Your task to perform on an android device: Go to Yahoo.com Image 0: 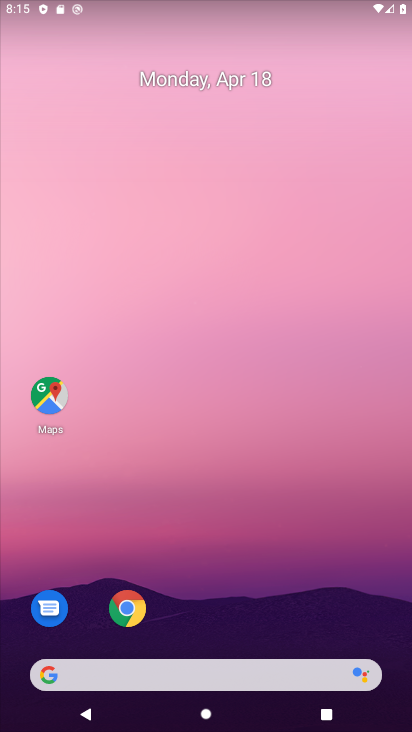
Step 0: click (127, 613)
Your task to perform on an android device: Go to Yahoo.com Image 1: 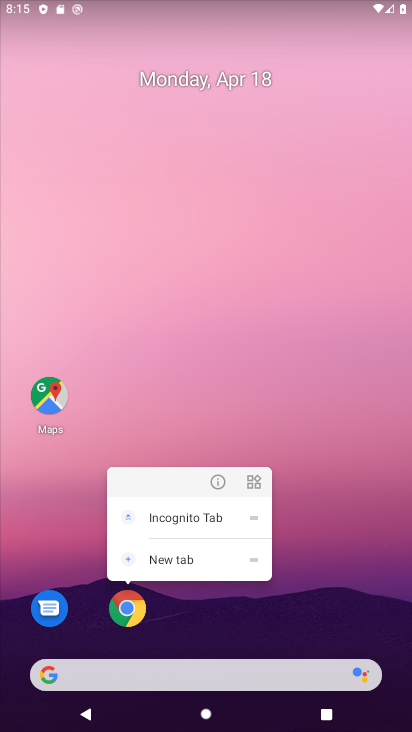
Step 1: click (129, 615)
Your task to perform on an android device: Go to Yahoo.com Image 2: 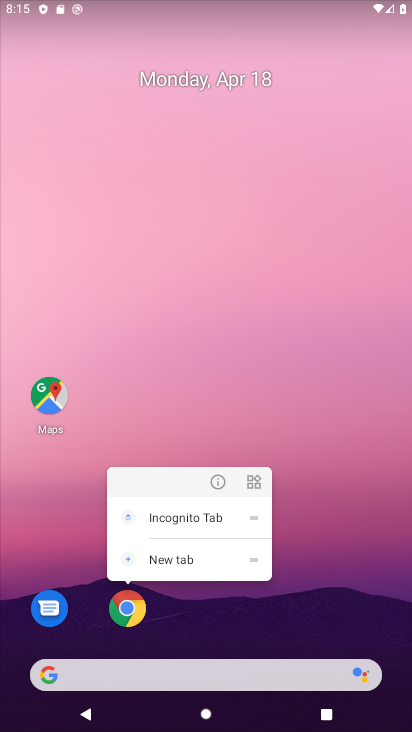
Step 2: click (129, 615)
Your task to perform on an android device: Go to Yahoo.com Image 3: 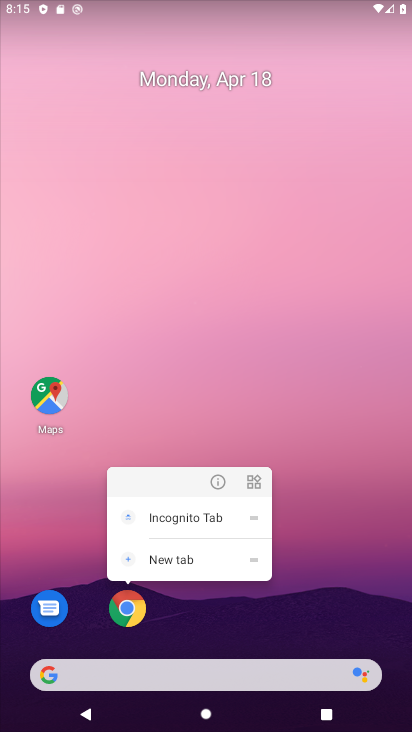
Step 3: click (128, 603)
Your task to perform on an android device: Go to Yahoo.com Image 4: 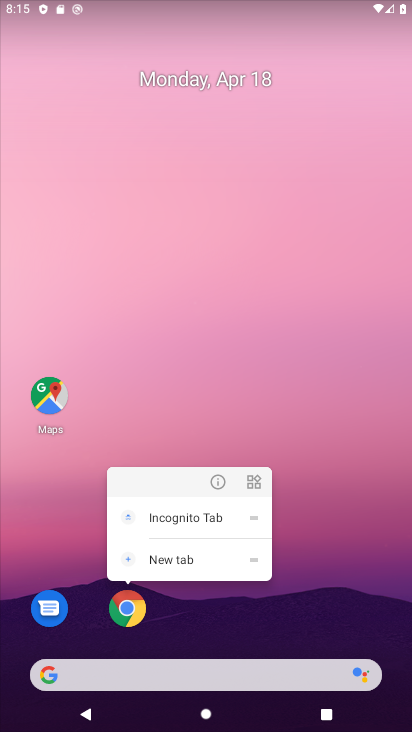
Step 4: click (125, 609)
Your task to perform on an android device: Go to Yahoo.com Image 5: 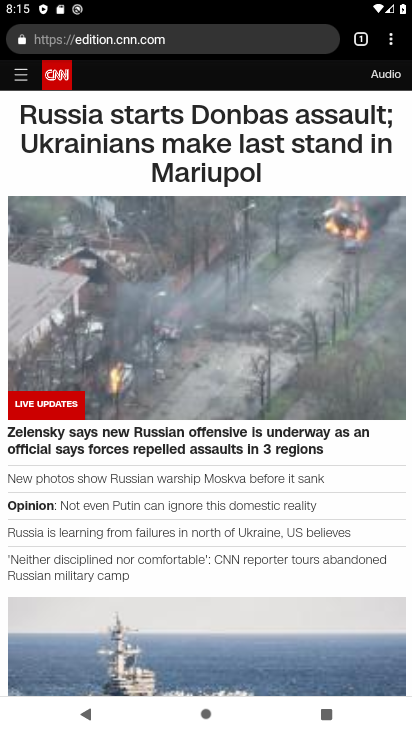
Step 5: click (293, 44)
Your task to perform on an android device: Go to Yahoo.com Image 6: 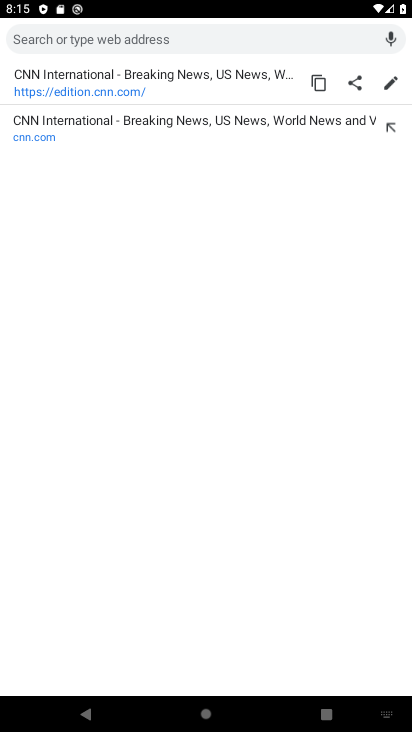
Step 6: click (293, 44)
Your task to perform on an android device: Go to Yahoo.com Image 7: 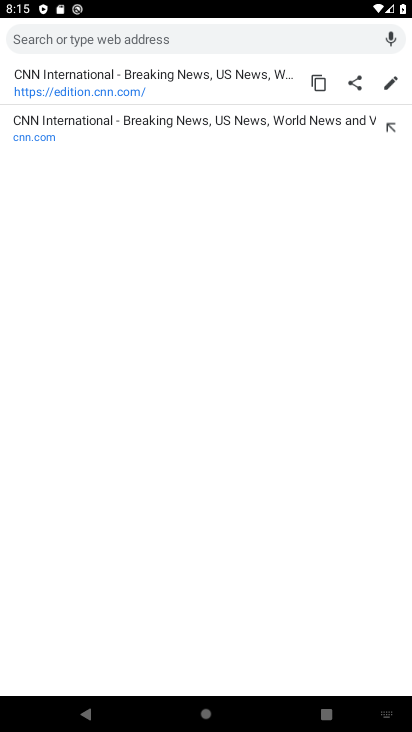
Step 7: type "Yahoo.com"
Your task to perform on an android device: Go to Yahoo.com Image 8: 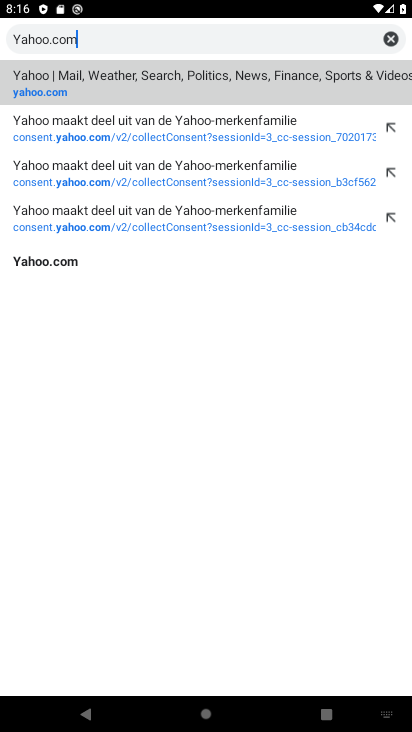
Step 8: type ""
Your task to perform on an android device: Go to Yahoo.com Image 9: 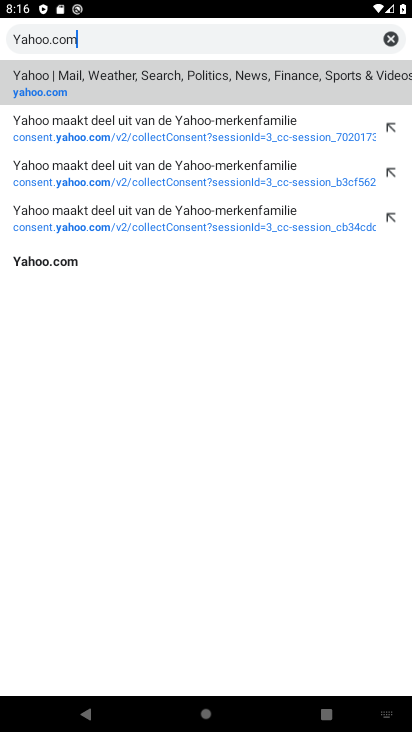
Step 9: click (86, 77)
Your task to perform on an android device: Go to Yahoo.com Image 10: 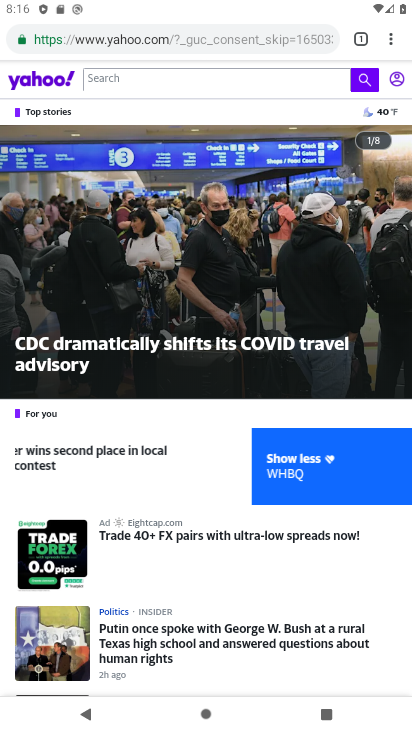
Step 10: task complete